Your task to perform on an android device: Open display settings Image 0: 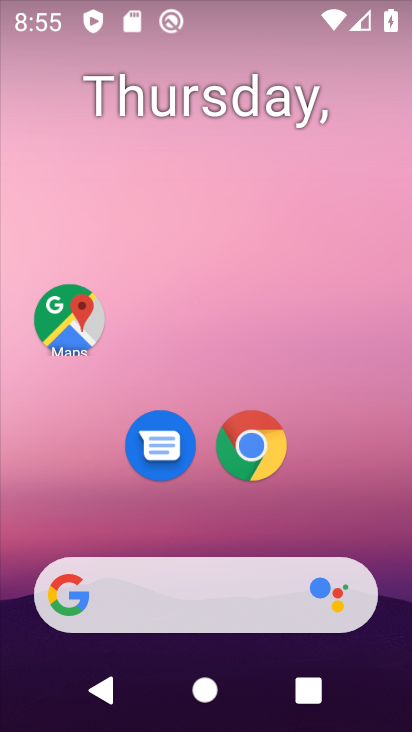
Step 0: drag from (362, 528) to (326, 5)
Your task to perform on an android device: Open display settings Image 1: 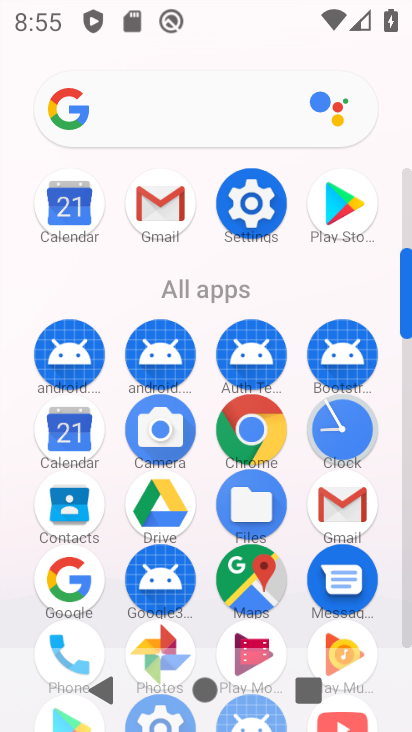
Step 1: click (260, 200)
Your task to perform on an android device: Open display settings Image 2: 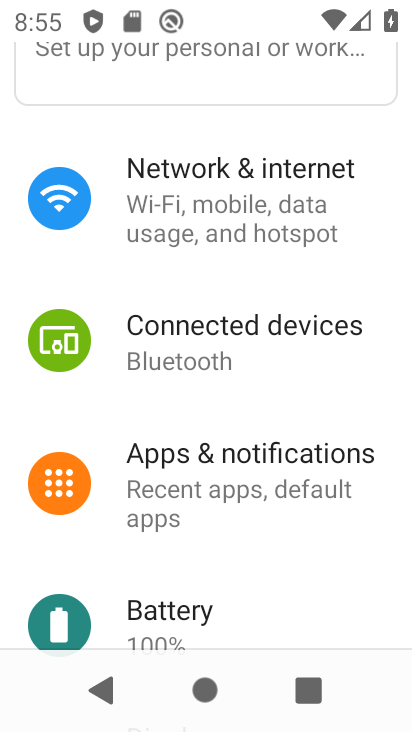
Step 2: drag from (343, 544) to (296, 187)
Your task to perform on an android device: Open display settings Image 3: 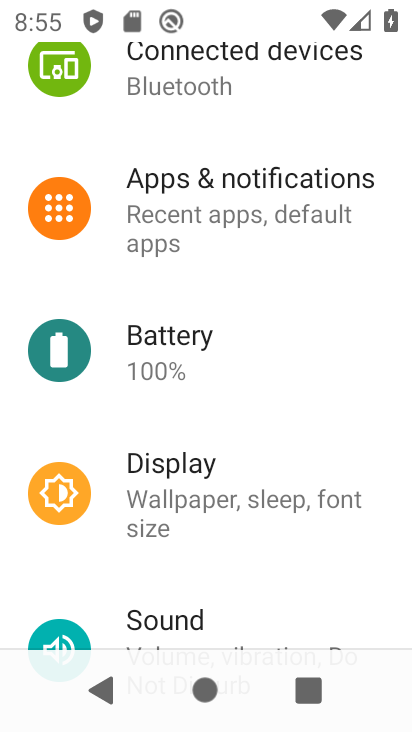
Step 3: click (198, 475)
Your task to perform on an android device: Open display settings Image 4: 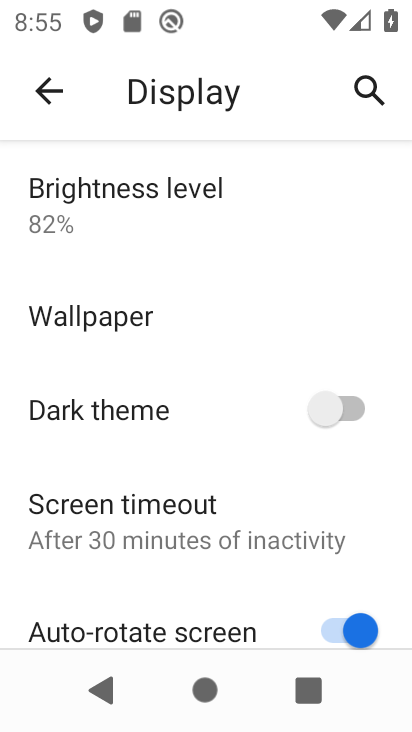
Step 4: task complete